Your task to perform on an android device: remove spam from my inbox in the gmail app Image 0: 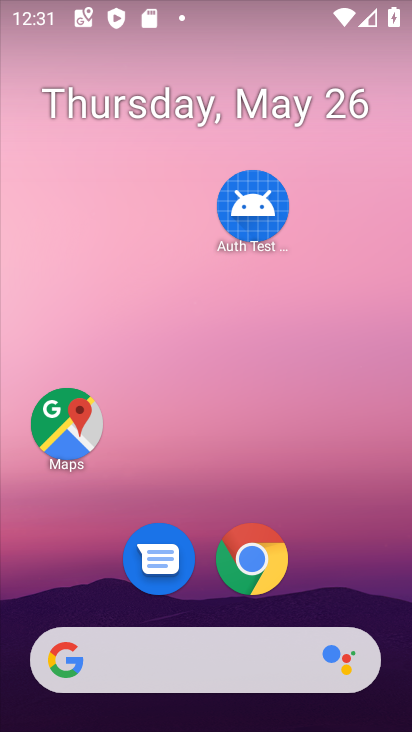
Step 0: drag from (349, 558) to (323, 122)
Your task to perform on an android device: remove spam from my inbox in the gmail app Image 1: 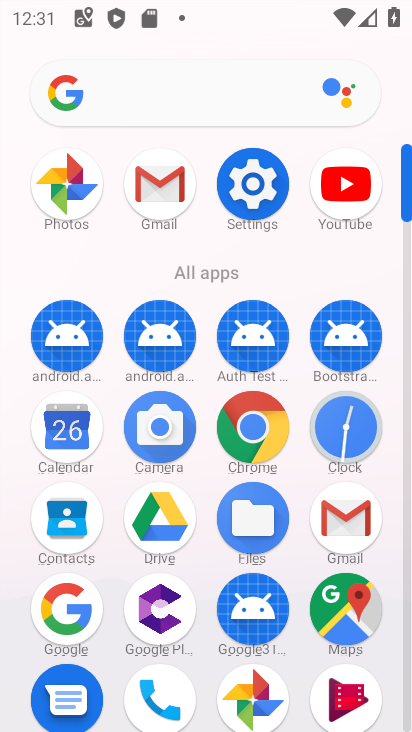
Step 1: click (168, 183)
Your task to perform on an android device: remove spam from my inbox in the gmail app Image 2: 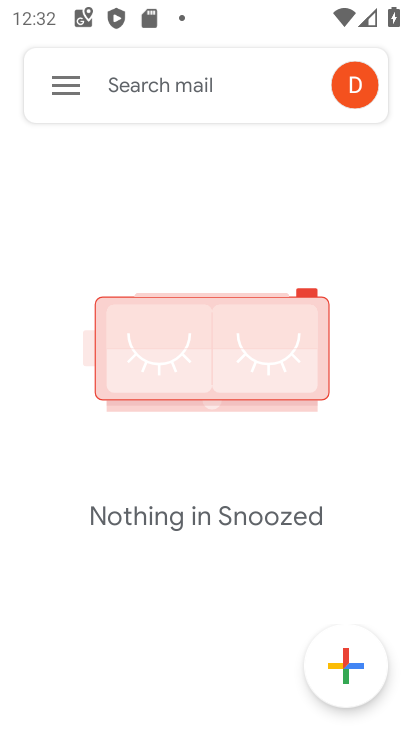
Step 2: click (60, 94)
Your task to perform on an android device: remove spam from my inbox in the gmail app Image 3: 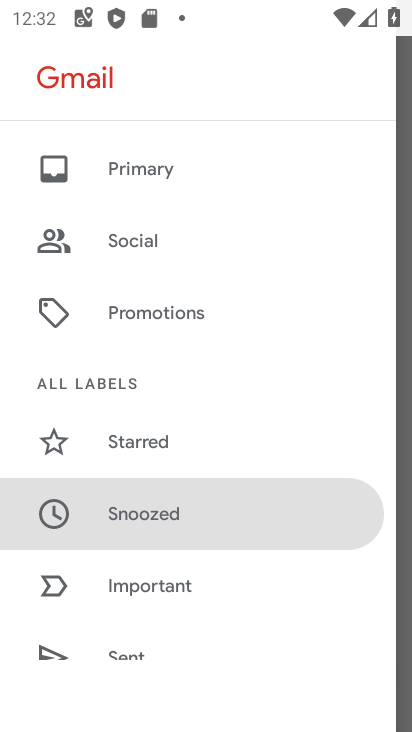
Step 3: drag from (218, 601) to (223, 281)
Your task to perform on an android device: remove spam from my inbox in the gmail app Image 4: 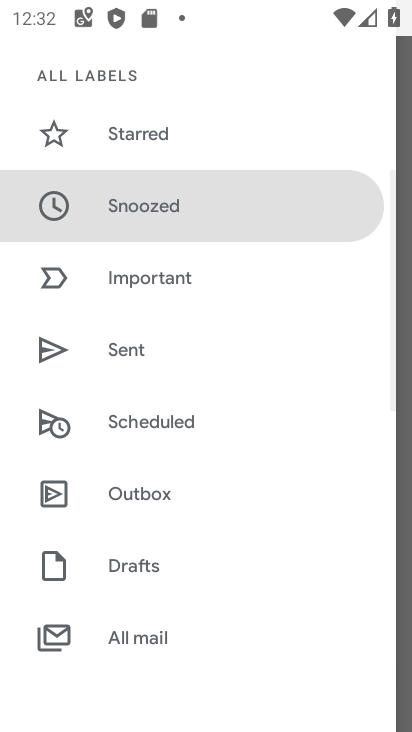
Step 4: drag from (224, 590) to (225, 246)
Your task to perform on an android device: remove spam from my inbox in the gmail app Image 5: 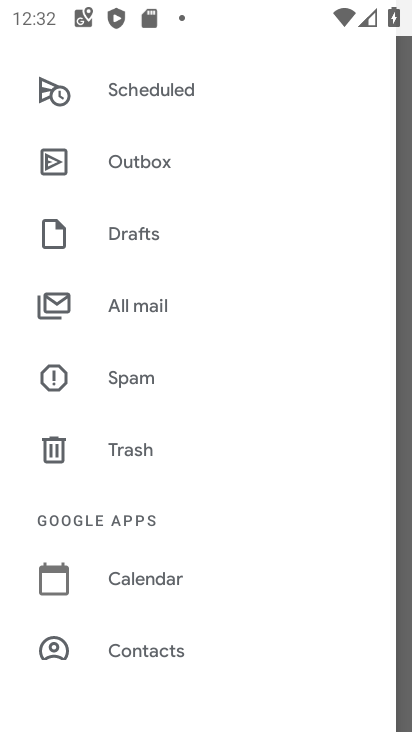
Step 5: click (213, 376)
Your task to perform on an android device: remove spam from my inbox in the gmail app Image 6: 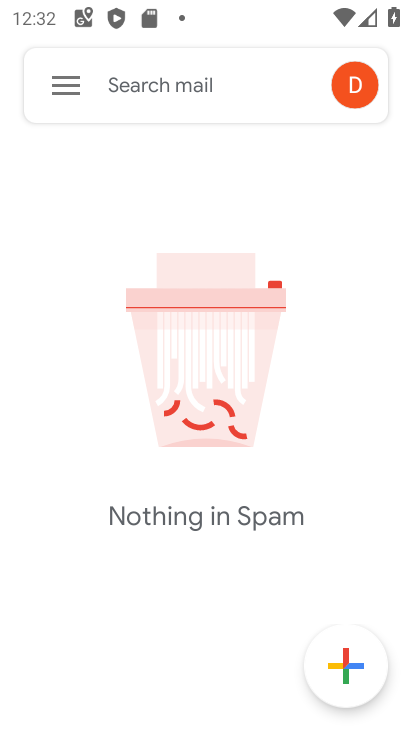
Step 6: task complete